Your task to perform on an android device: Open the web browser Image 0: 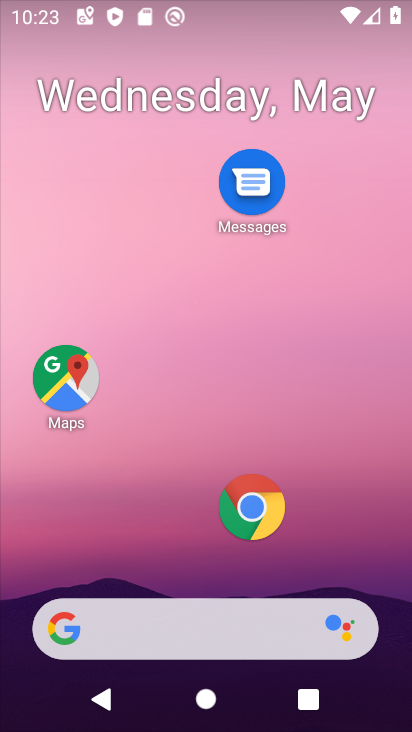
Step 0: drag from (205, 577) to (267, 105)
Your task to perform on an android device: Open the web browser Image 1: 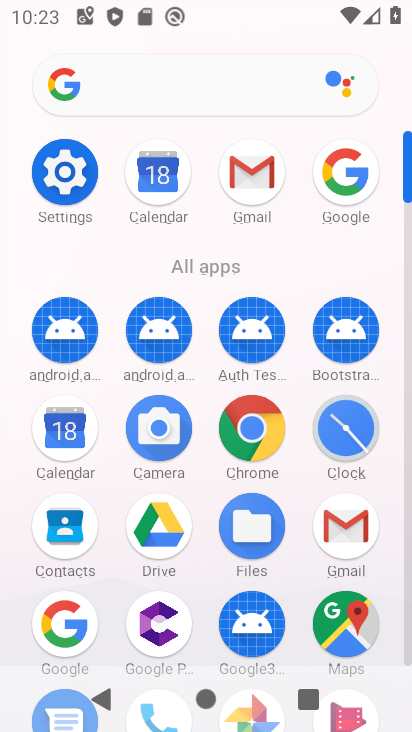
Step 1: drag from (203, 564) to (236, 197)
Your task to perform on an android device: Open the web browser Image 2: 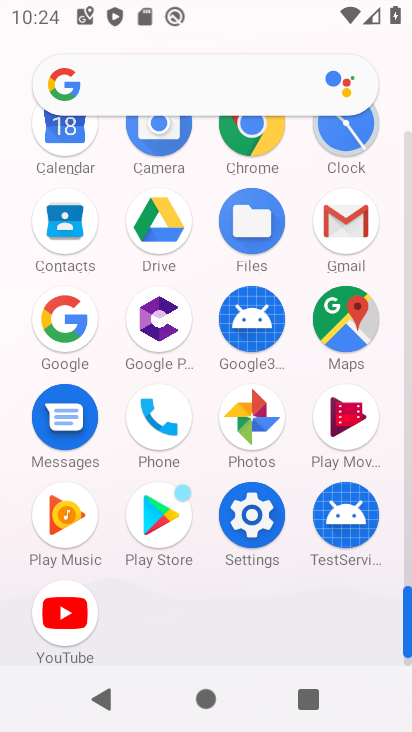
Step 2: click (252, 122)
Your task to perform on an android device: Open the web browser Image 3: 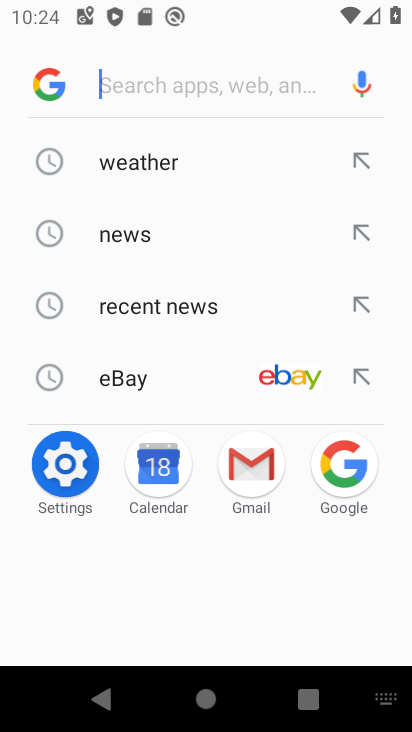
Step 3: task complete